Your task to perform on an android device: What's the weather going to be this weekend? Image 0: 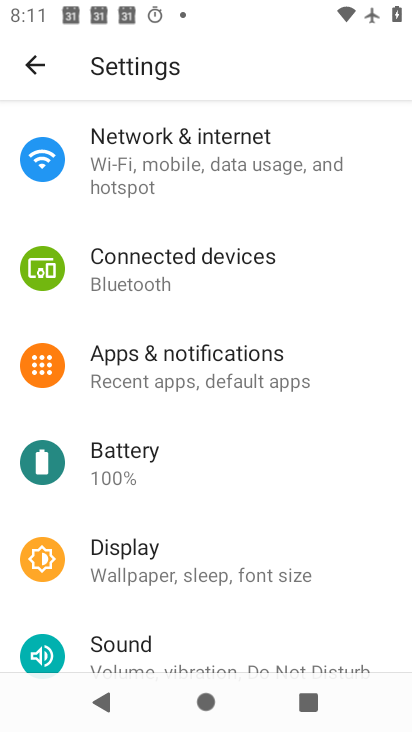
Step 0: press home button
Your task to perform on an android device: What's the weather going to be this weekend? Image 1: 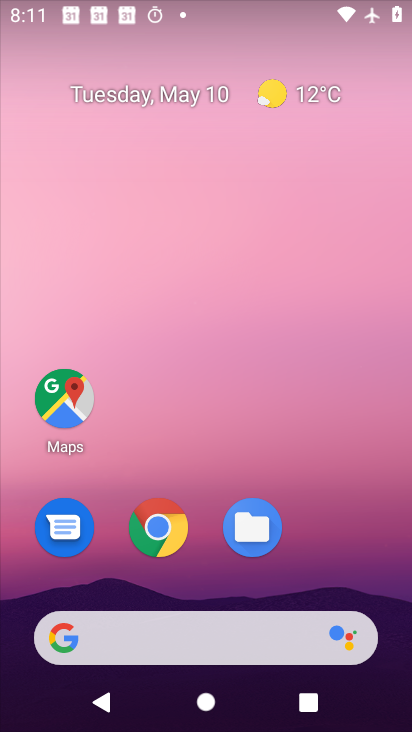
Step 1: click (157, 543)
Your task to perform on an android device: What's the weather going to be this weekend? Image 2: 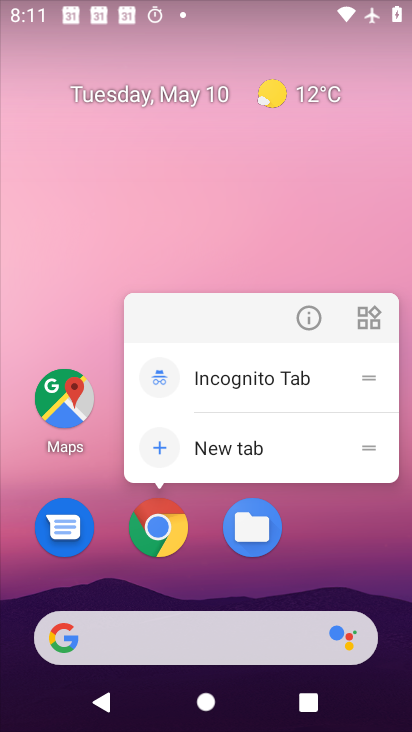
Step 2: click (157, 543)
Your task to perform on an android device: What's the weather going to be this weekend? Image 3: 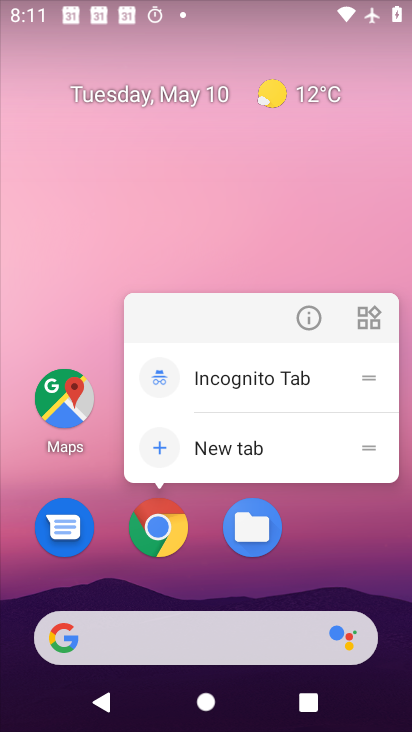
Step 3: click (163, 550)
Your task to perform on an android device: What's the weather going to be this weekend? Image 4: 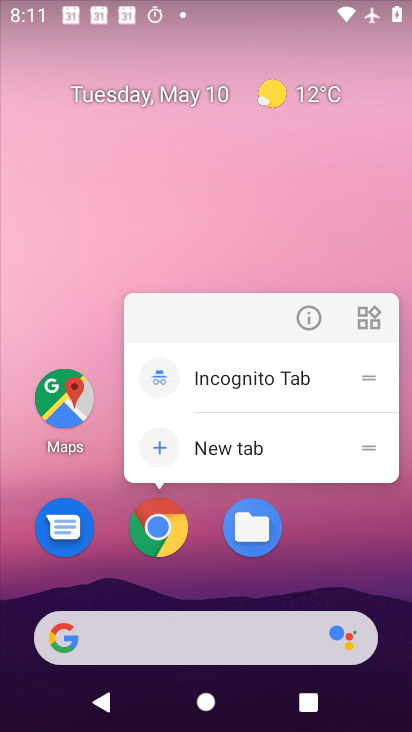
Step 4: click (144, 525)
Your task to perform on an android device: What's the weather going to be this weekend? Image 5: 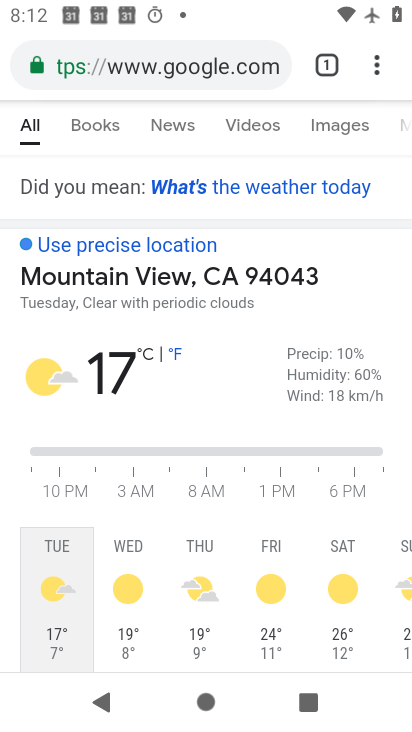
Step 5: type "whats the weather going to be this weekend?"
Your task to perform on an android device: What's the weather going to be this weekend? Image 6: 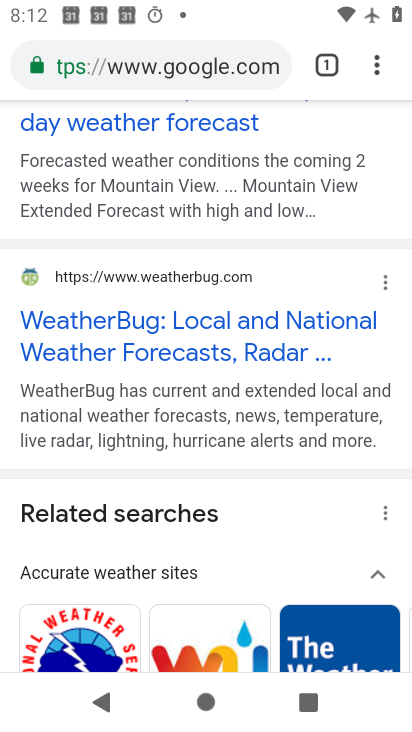
Step 6: drag from (211, 247) to (221, 673)
Your task to perform on an android device: What's the weather going to be this weekend? Image 7: 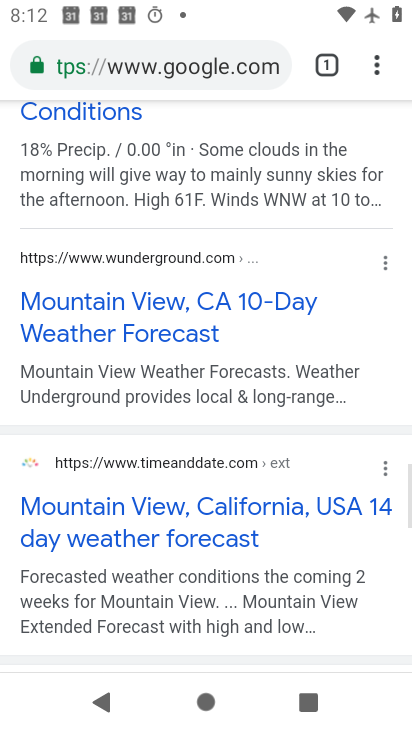
Step 7: drag from (188, 214) to (198, 595)
Your task to perform on an android device: What's the weather going to be this weekend? Image 8: 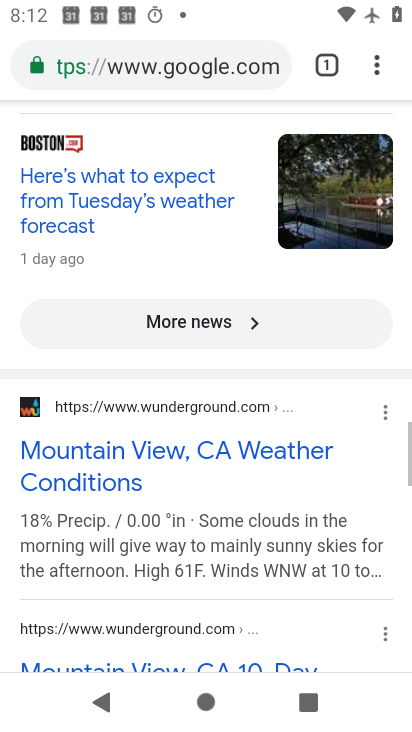
Step 8: drag from (169, 202) to (171, 617)
Your task to perform on an android device: What's the weather going to be this weekend? Image 9: 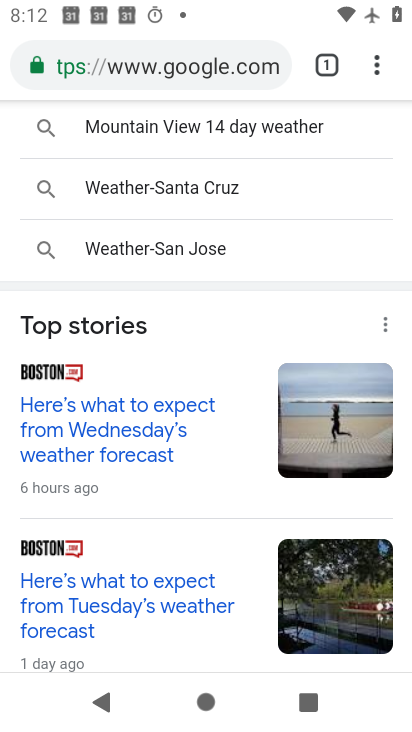
Step 9: drag from (149, 285) to (135, 676)
Your task to perform on an android device: What's the weather going to be this weekend? Image 10: 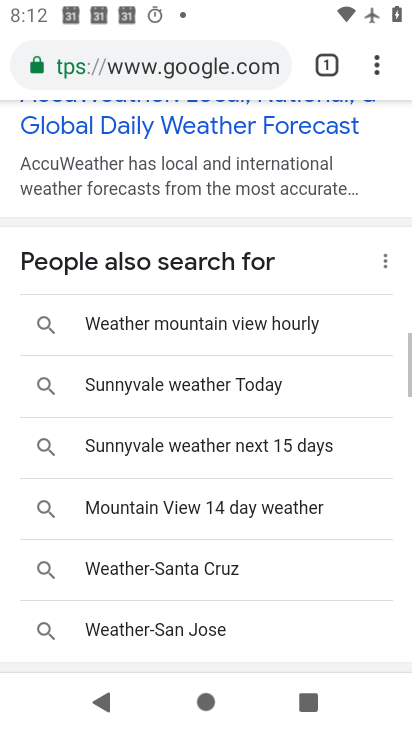
Step 10: drag from (142, 147) to (135, 605)
Your task to perform on an android device: What's the weather going to be this weekend? Image 11: 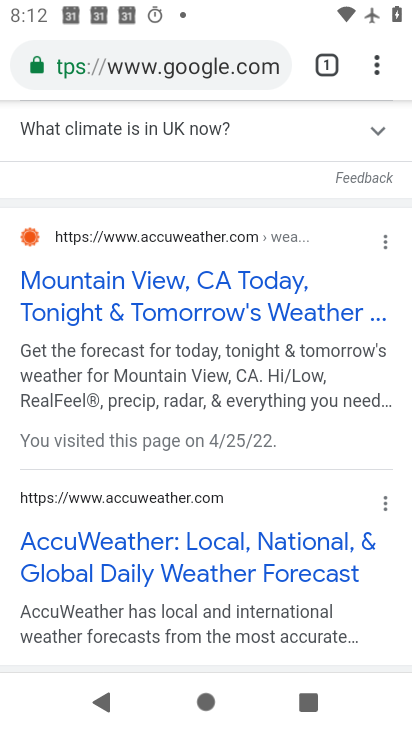
Step 11: drag from (155, 196) to (133, 643)
Your task to perform on an android device: What's the weather going to be this weekend? Image 12: 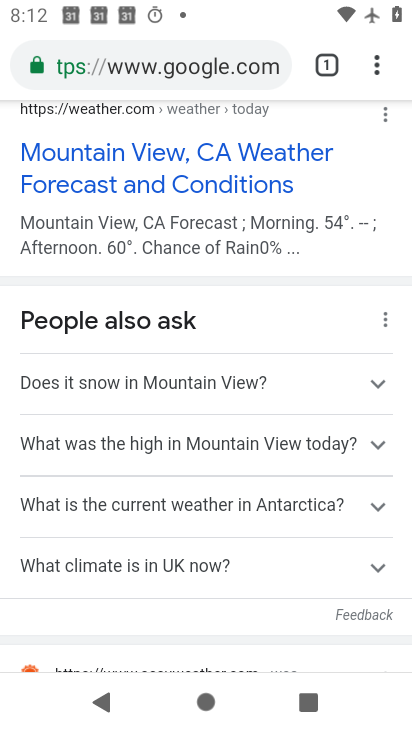
Step 12: drag from (147, 171) to (109, 600)
Your task to perform on an android device: What's the weather going to be this weekend? Image 13: 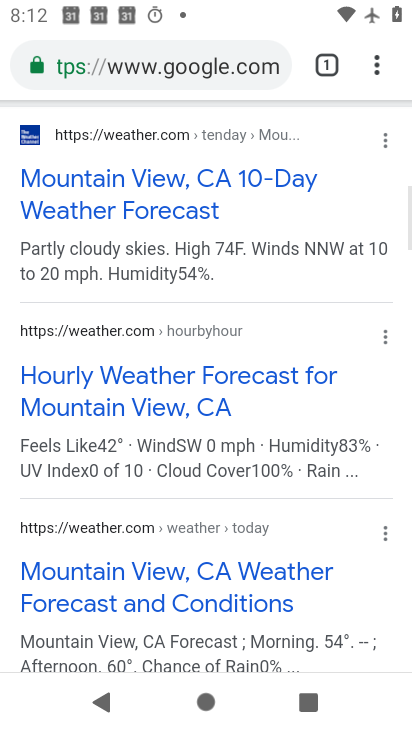
Step 13: drag from (135, 232) to (123, 507)
Your task to perform on an android device: What's the weather going to be this weekend? Image 14: 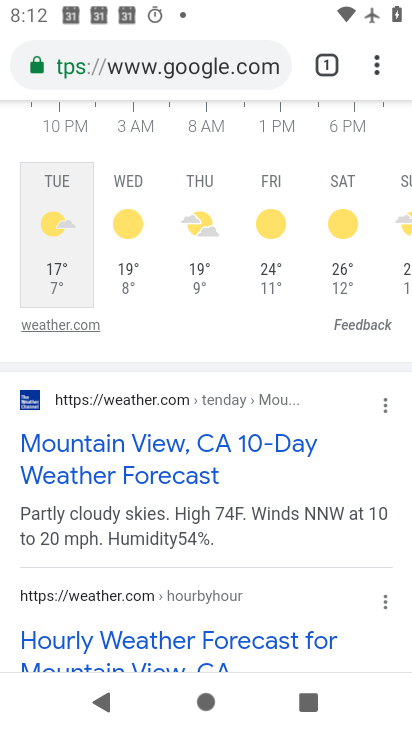
Step 14: drag from (155, 265) to (107, 571)
Your task to perform on an android device: What's the weather going to be this weekend? Image 15: 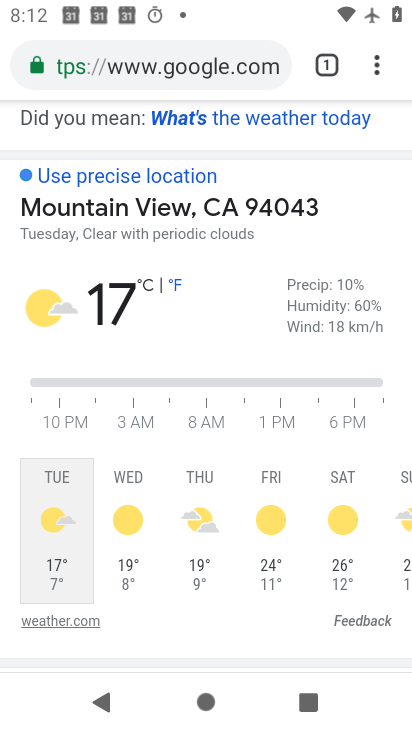
Step 15: click (254, 118)
Your task to perform on an android device: What's the weather going to be this weekend? Image 16: 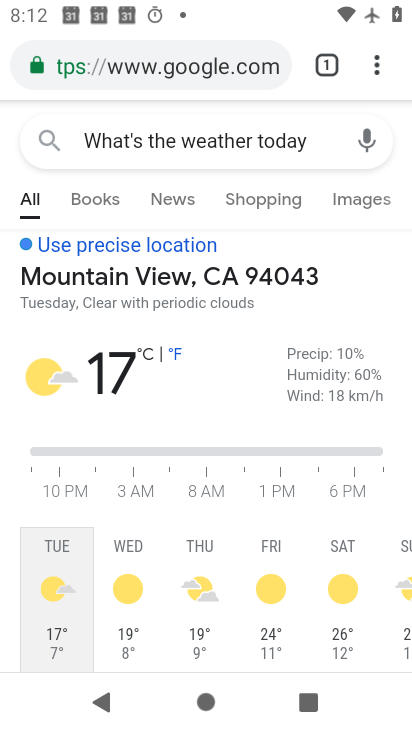
Step 16: task complete